Your task to perform on an android device: turn off wifi Image 0: 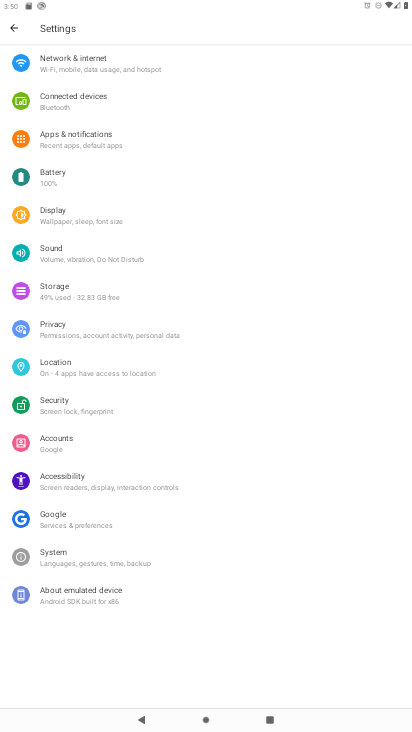
Step 0: click (122, 72)
Your task to perform on an android device: turn off wifi Image 1: 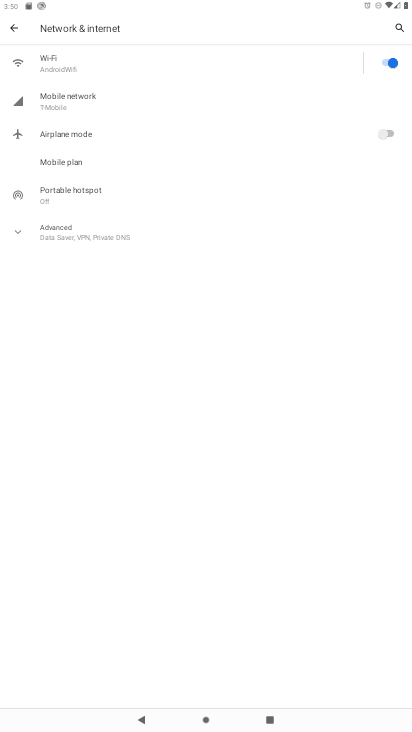
Step 1: click (398, 68)
Your task to perform on an android device: turn off wifi Image 2: 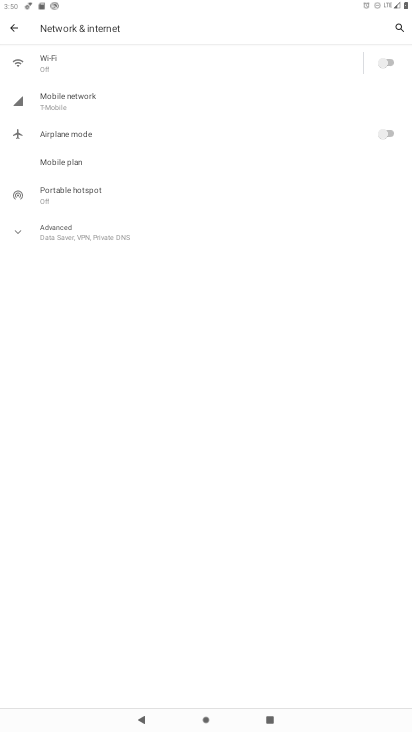
Step 2: task complete